Your task to perform on an android device: turn off data saver in the chrome app Image 0: 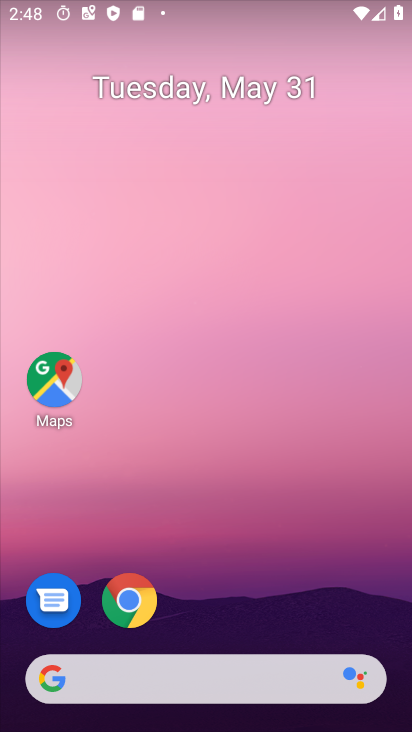
Step 0: click (129, 593)
Your task to perform on an android device: turn off data saver in the chrome app Image 1: 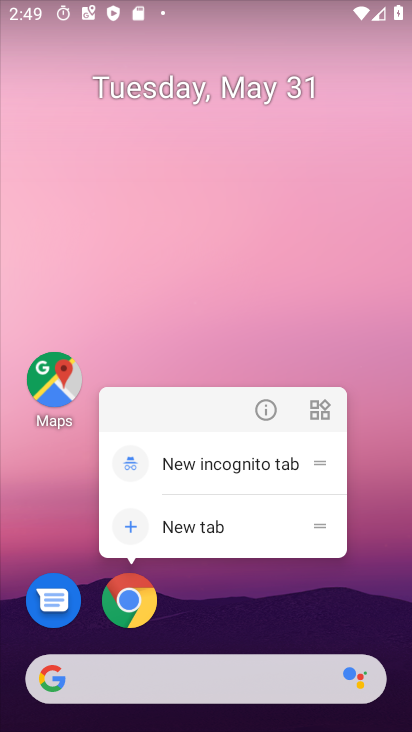
Step 1: click (122, 599)
Your task to perform on an android device: turn off data saver in the chrome app Image 2: 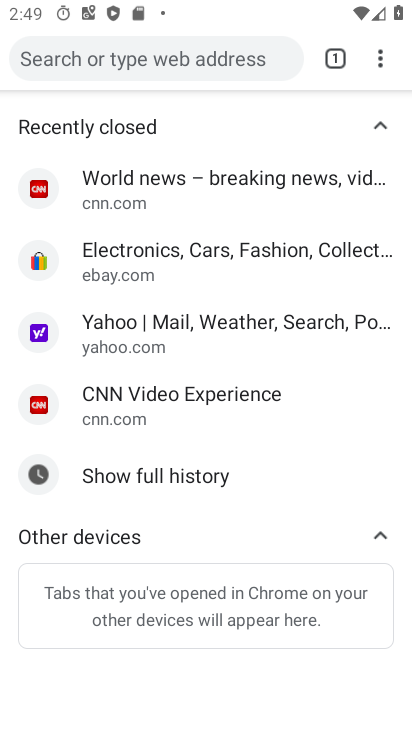
Step 2: click (383, 44)
Your task to perform on an android device: turn off data saver in the chrome app Image 3: 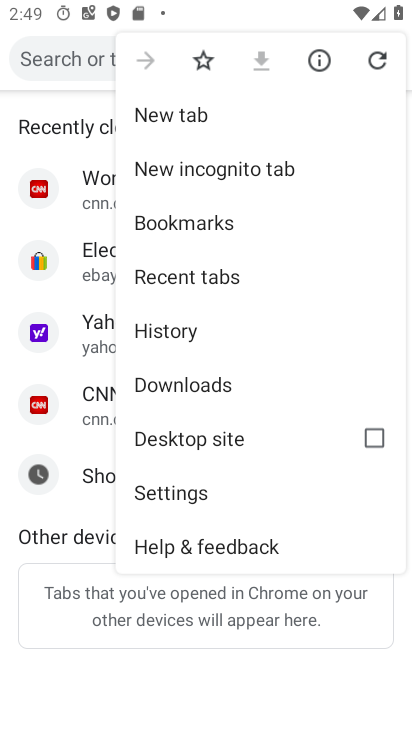
Step 3: click (211, 495)
Your task to perform on an android device: turn off data saver in the chrome app Image 4: 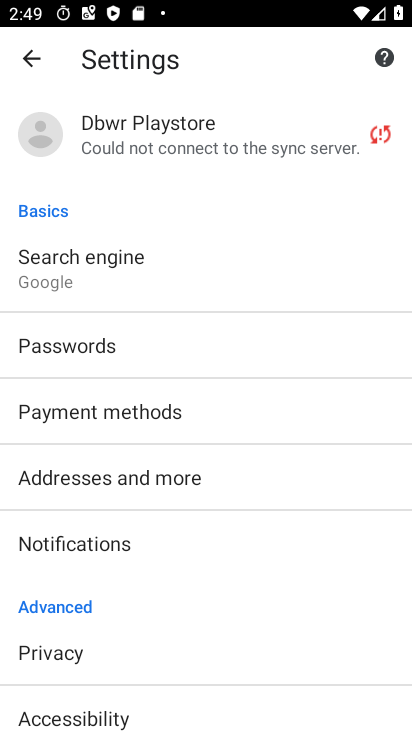
Step 4: drag from (190, 664) to (188, 38)
Your task to perform on an android device: turn off data saver in the chrome app Image 5: 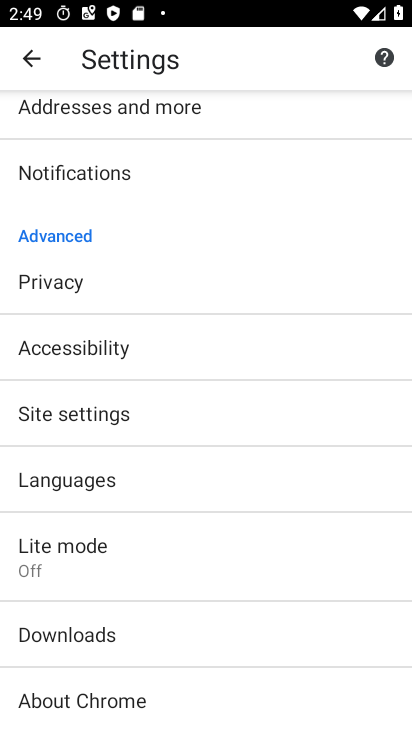
Step 5: click (119, 559)
Your task to perform on an android device: turn off data saver in the chrome app Image 6: 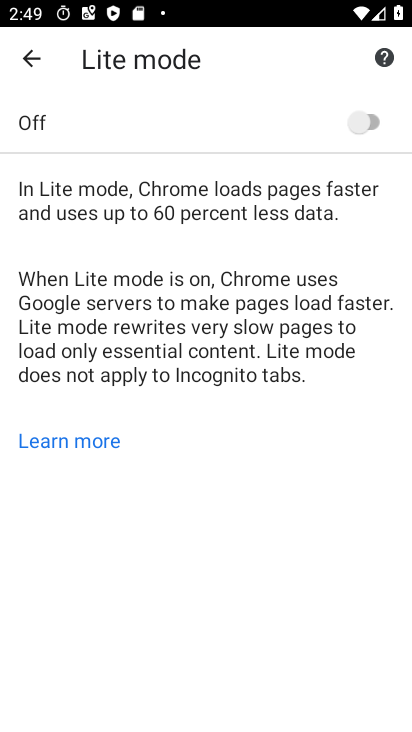
Step 6: task complete